Your task to perform on an android device: Search for "razer huntsman" on costco.com, select the first entry, and add it to the cart. Image 0: 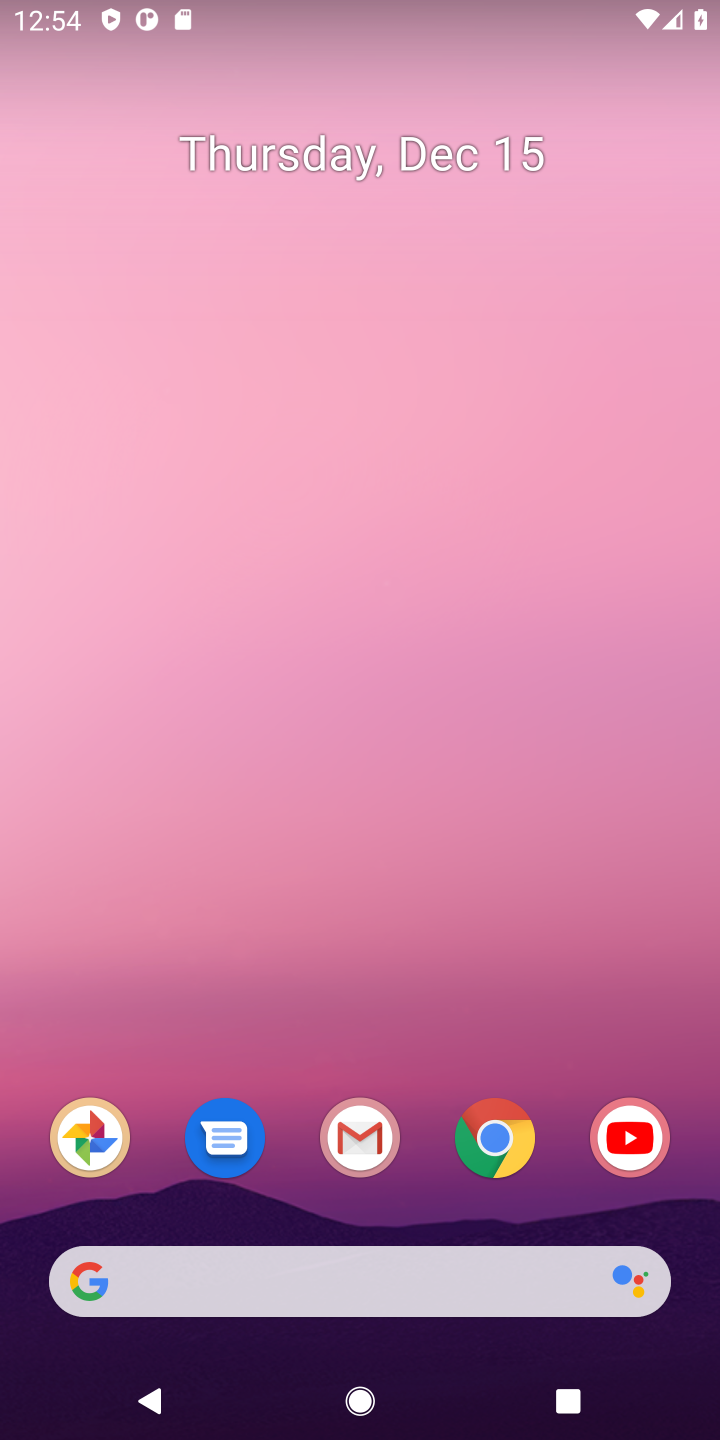
Step 0: click (495, 1158)
Your task to perform on an android device: Search for "razer huntsman" on costco.com, select the first entry, and add it to the cart. Image 1: 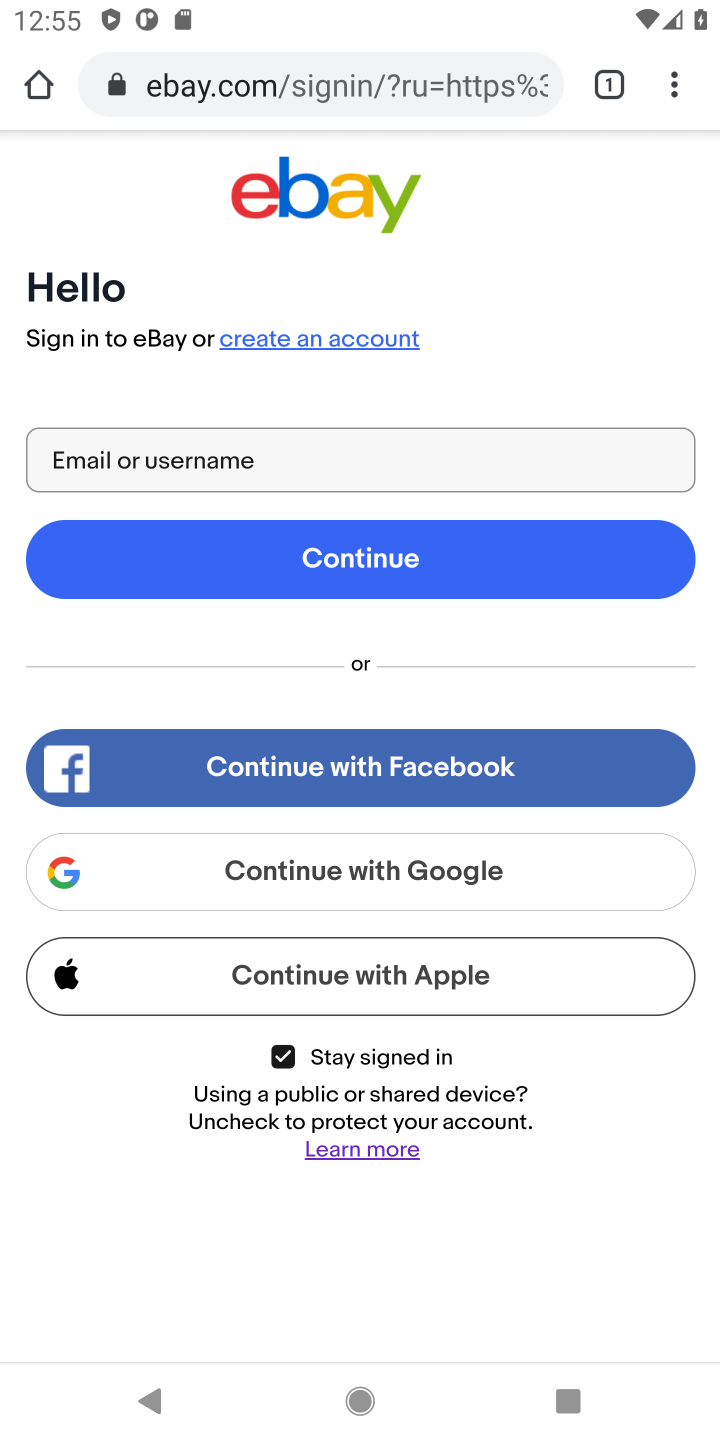
Step 1: click (245, 85)
Your task to perform on an android device: Search for "razer huntsman" on costco.com, select the first entry, and add it to the cart. Image 2: 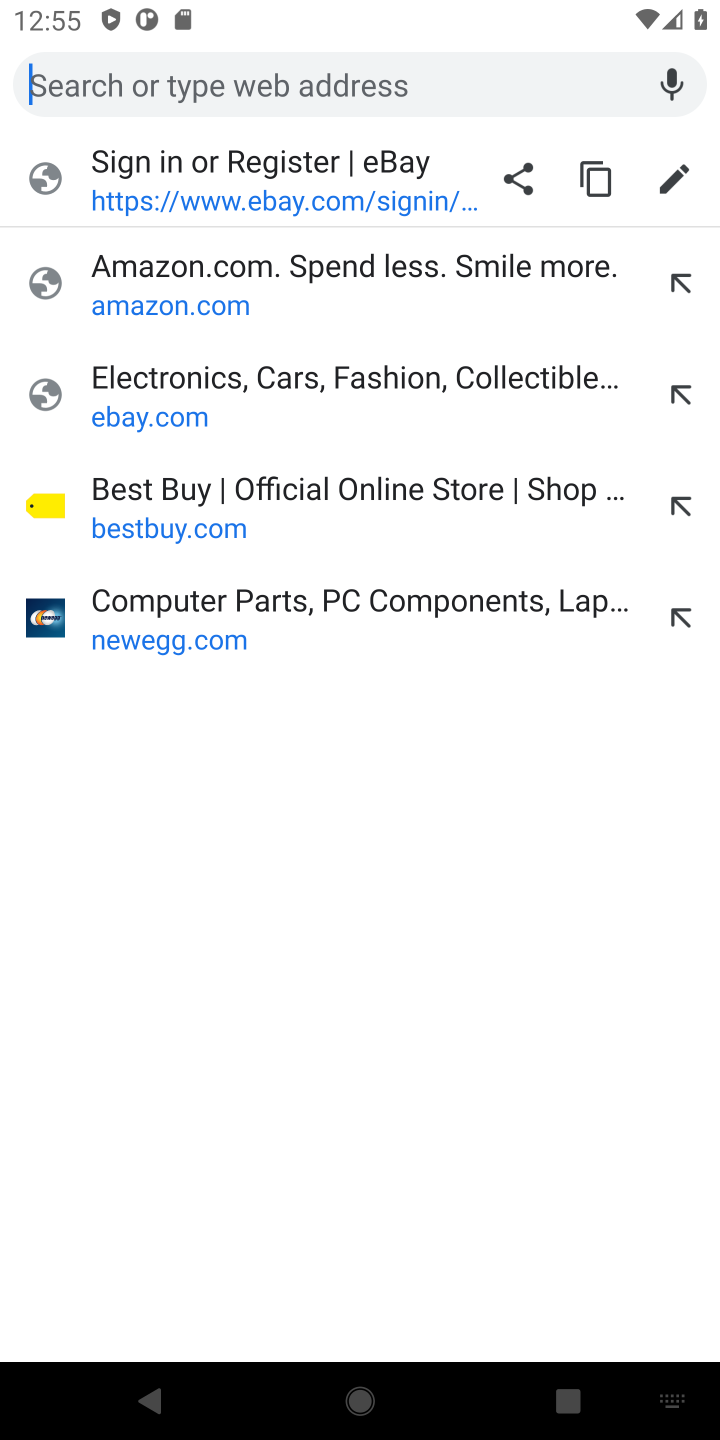
Step 2: type "costco"
Your task to perform on an android device: Search for "razer huntsman" on costco.com, select the first entry, and add it to the cart. Image 3: 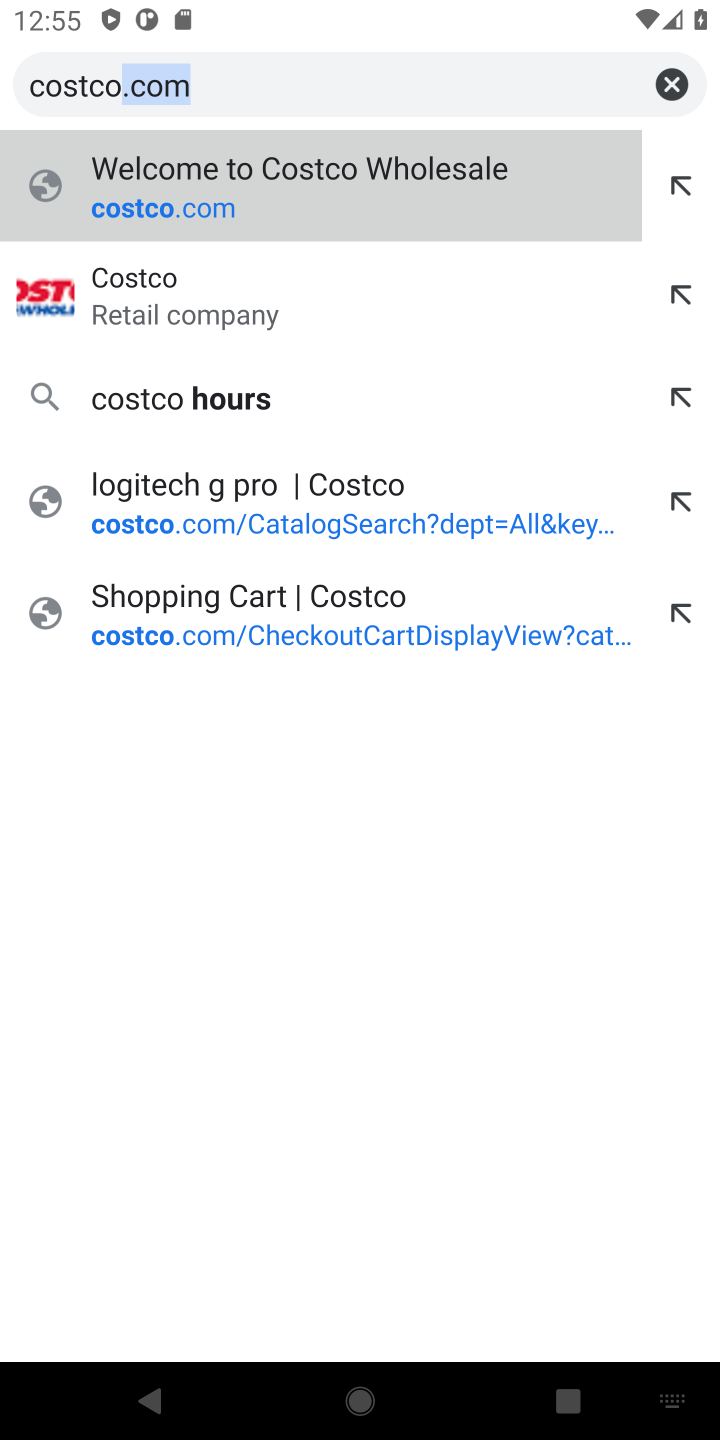
Step 3: click (247, 205)
Your task to perform on an android device: Search for "razer huntsman" on costco.com, select the first entry, and add it to the cart. Image 4: 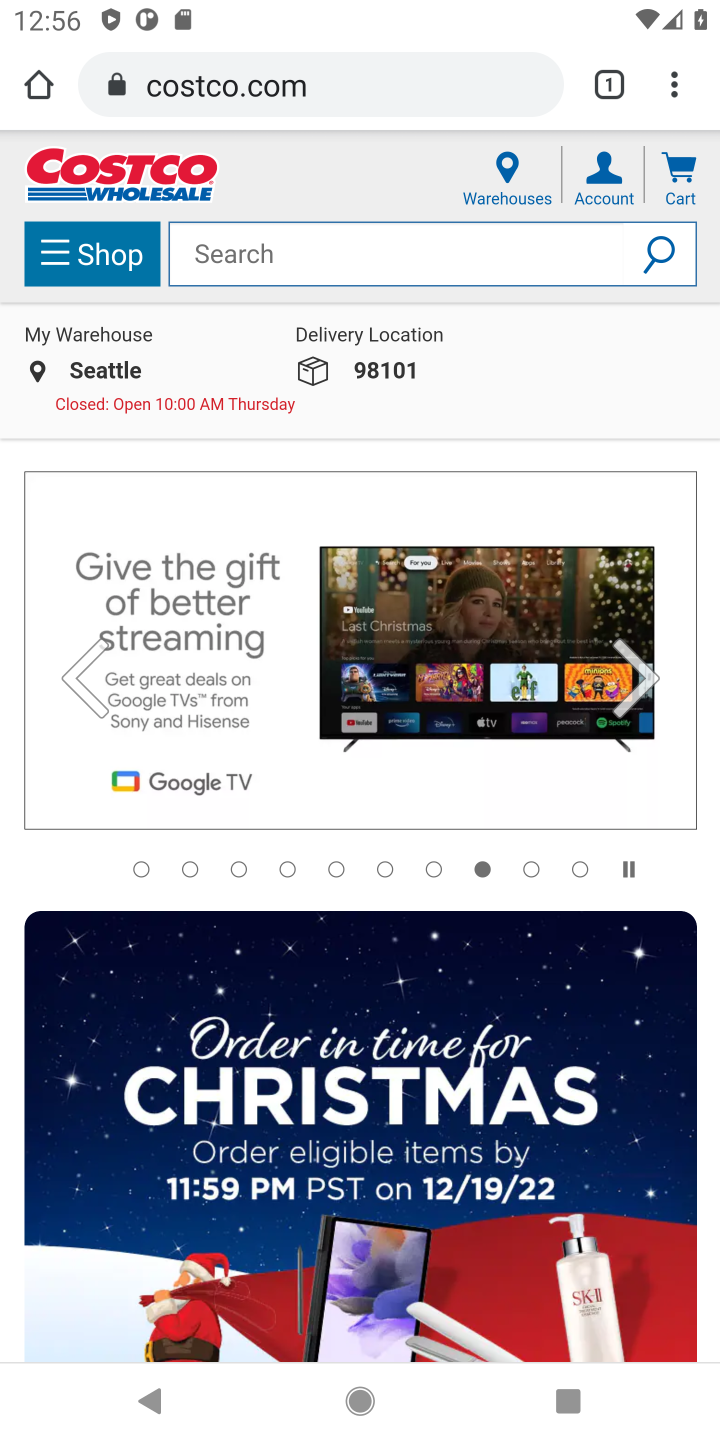
Step 4: click (323, 258)
Your task to perform on an android device: Search for "razer huntsman" on costco.com, select the first entry, and add it to the cart. Image 5: 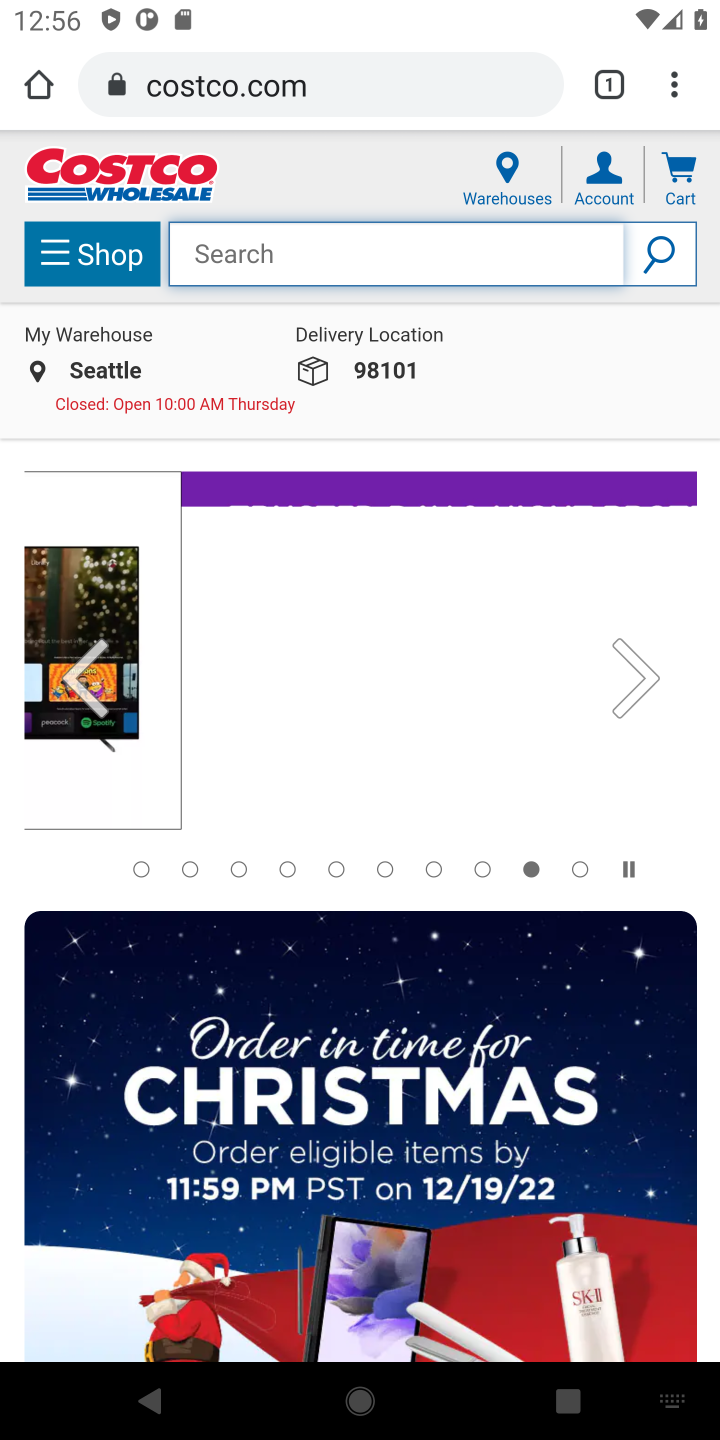
Step 5: press enter
Your task to perform on an android device: Search for "razer huntsman" on costco.com, select the first entry, and add it to the cart. Image 6: 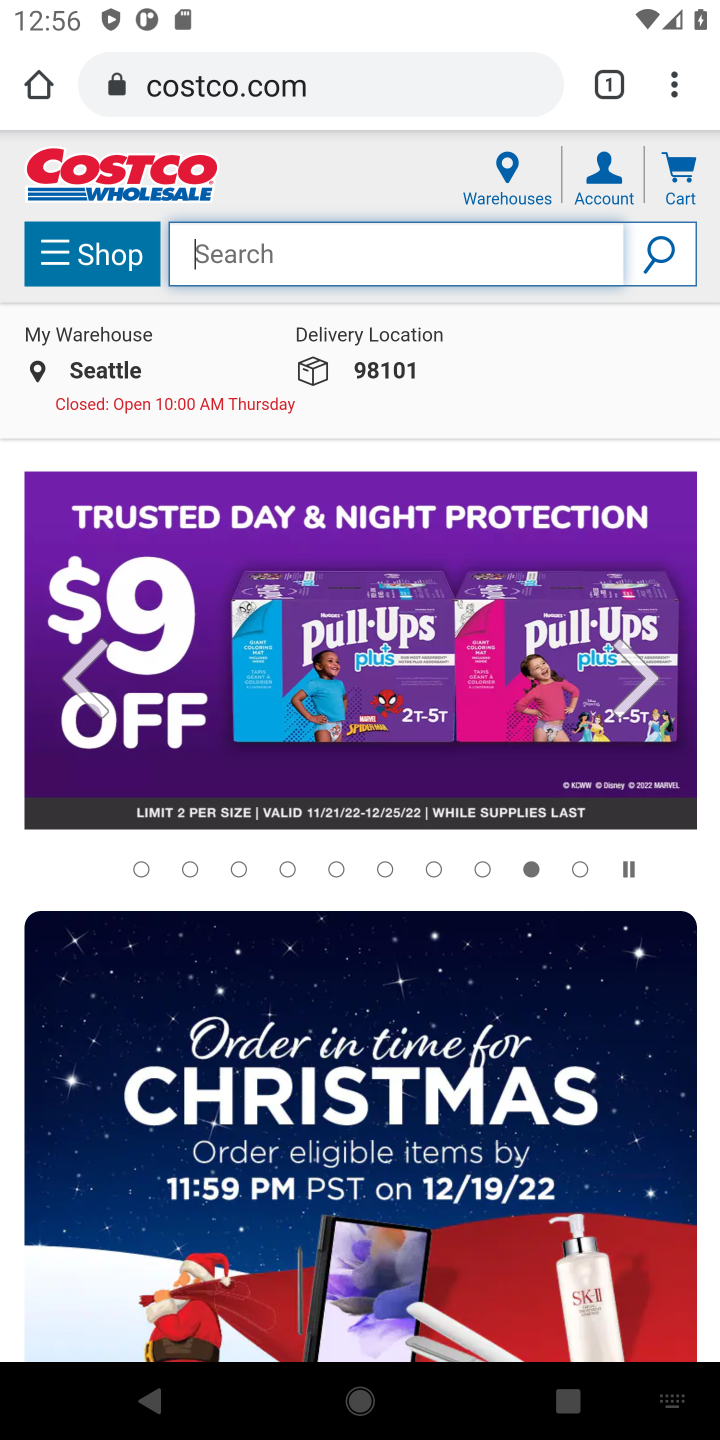
Step 6: type "razer huntsman"
Your task to perform on an android device: Search for "razer huntsman" on costco.com, select the first entry, and add it to the cart. Image 7: 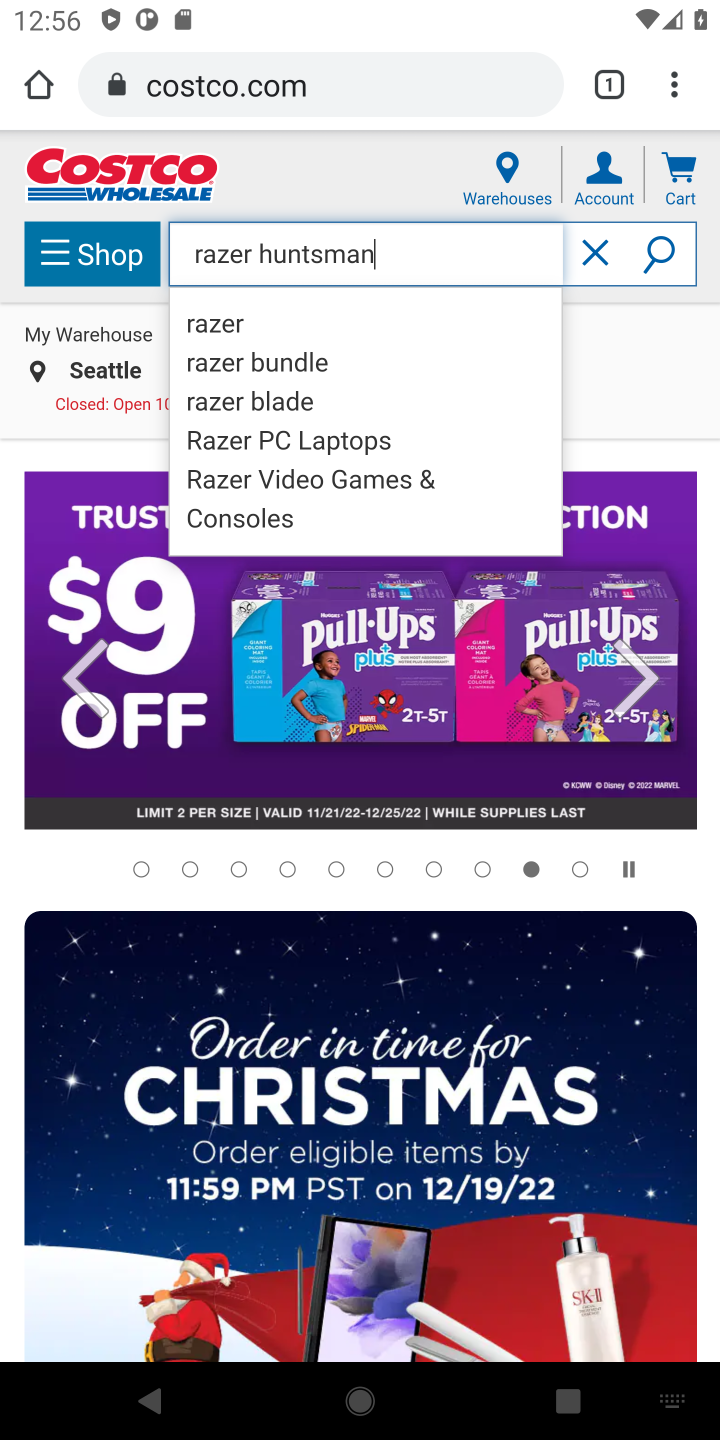
Step 7: click (670, 257)
Your task to perform on an android device: Search for "razer huntsman" on costco.com, select the first entry, and add it to the cart. Image 8: 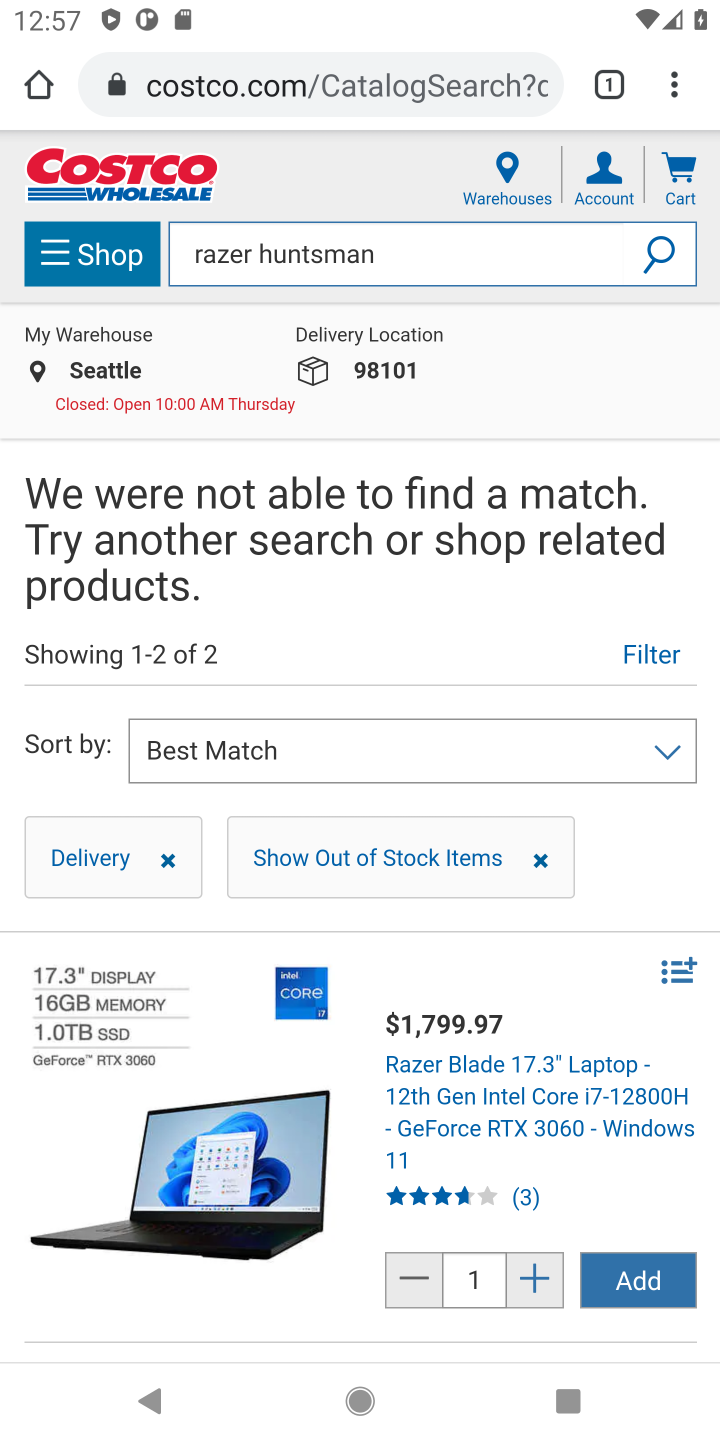
Step 8: task complete